Your task to perform on an android device: toggle notification dots Image 0: 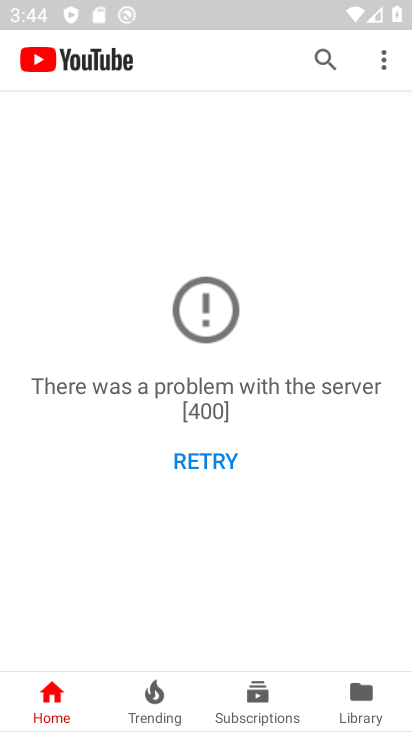
Step 0: press home button
Your task to perform on an android device: toggle notification dots Image 1: 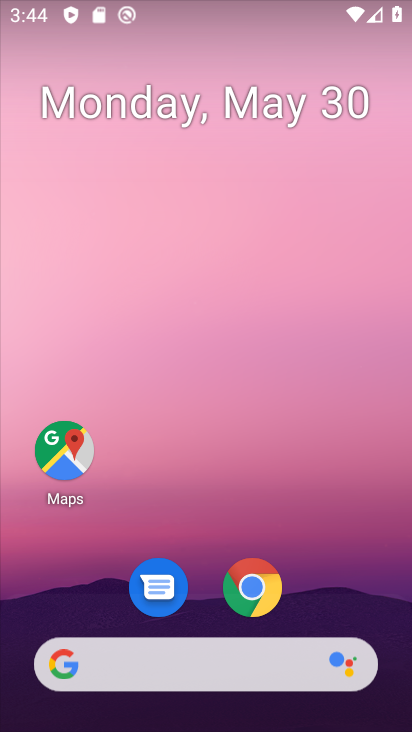
Step 1: drag from (264, 663) to (180, 105)
Your task to perform on an android device: toggle notification dots Image 2: 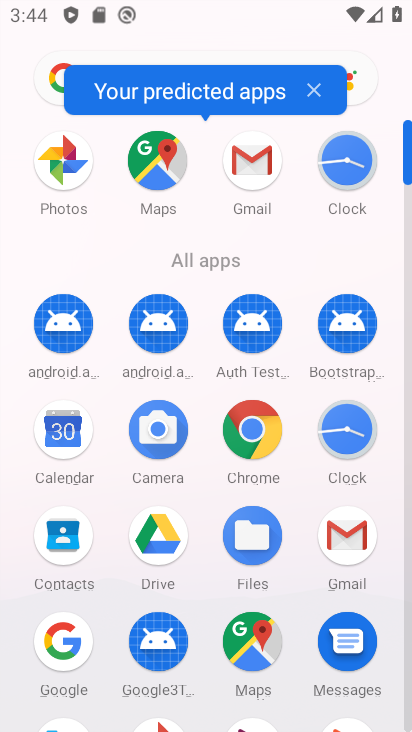
Step 2: drag from (208, 569) to (214, 297)
Your task to perform on an android device: toggle notification dots Image 3: 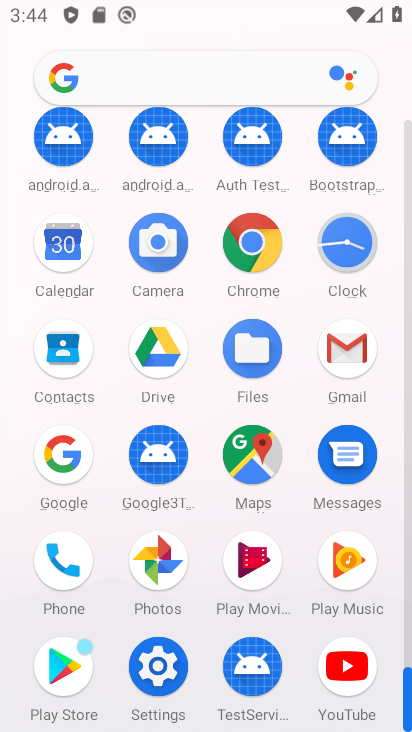
Step 3: click (164, 652)
Your task to perform on an android device: toggle notification dots Image 4: 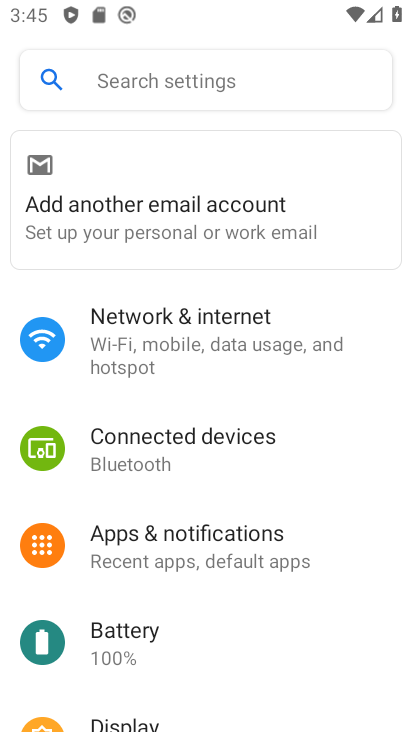
Step 4: click (162, 91)
Your task to perform on an android device: toggle notification dots Image 5: 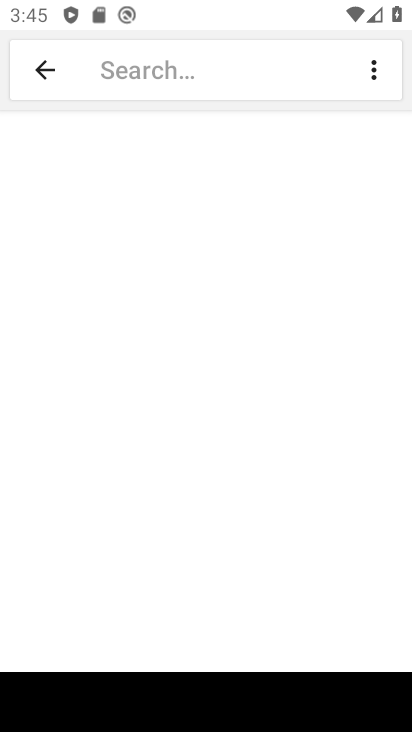
Step 5: drag from (388, 688) to (357, 482)
Your task to perform on an android device: toggle notification dots Image 6: 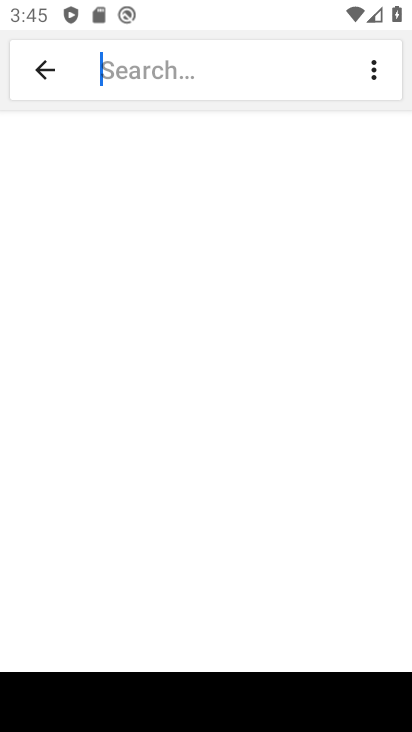
Step 6: drag from (393, 720) to (368, 673)
Your task to perform on an android device: toggle notification dots Image 7: 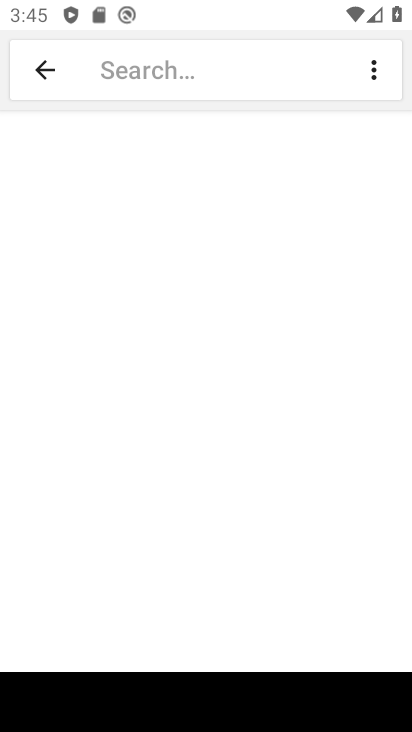
Step 7: drag from (394, 719) to (374, 628)
Your task to perform on an android device: toggle notification dots Image 8: 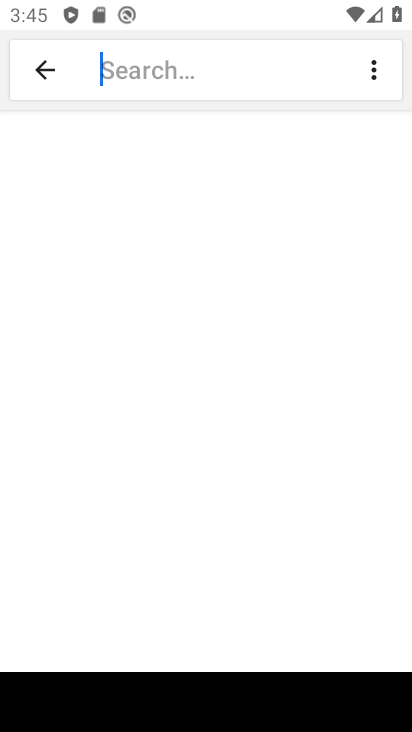
Step 8: click (390, 713)
Your task to perform on an android device: toggle notification dots Image 9: 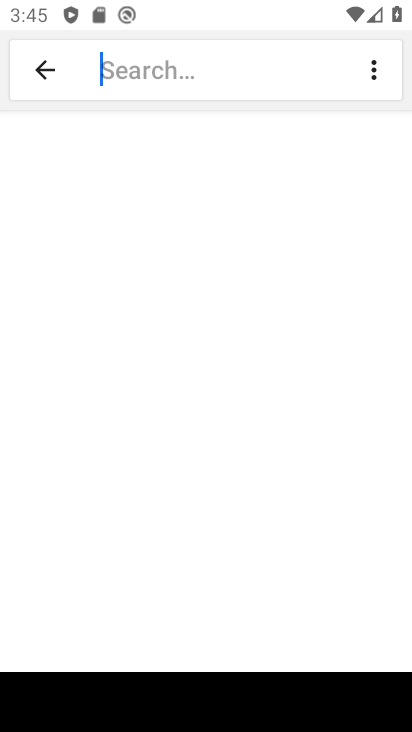
Step 9: drag from (386, 702) to (392, 488)
Your task to perform on an android device: toggle notification dots Image 10: 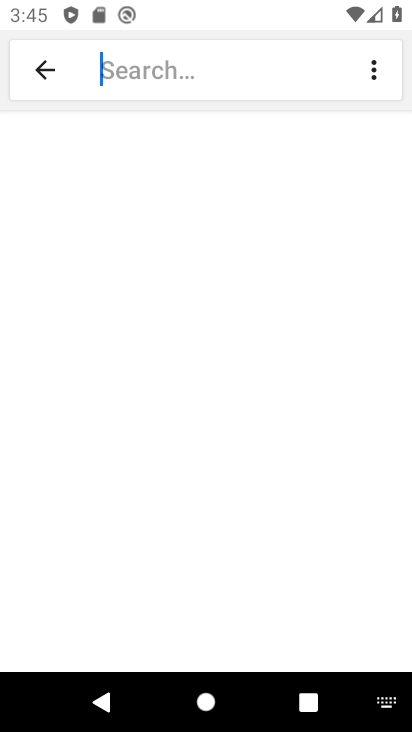
Step 10: click (395, 715)
Your task to perform on an android device: toggle notification dots Image 11: 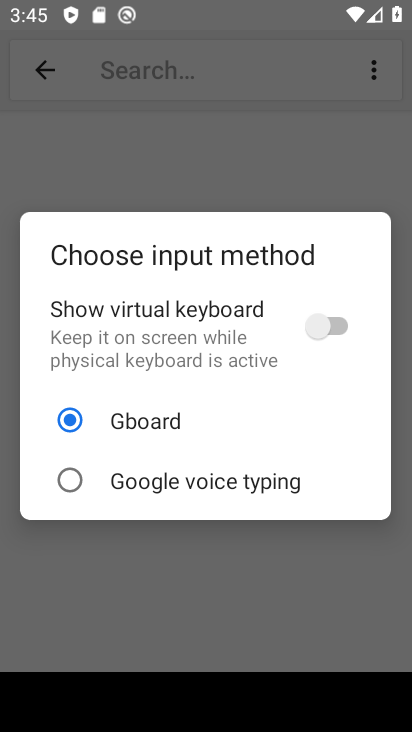
Step 11: click (329, 334)
Your task to perform on an android device: toggle notification dots Image 12: 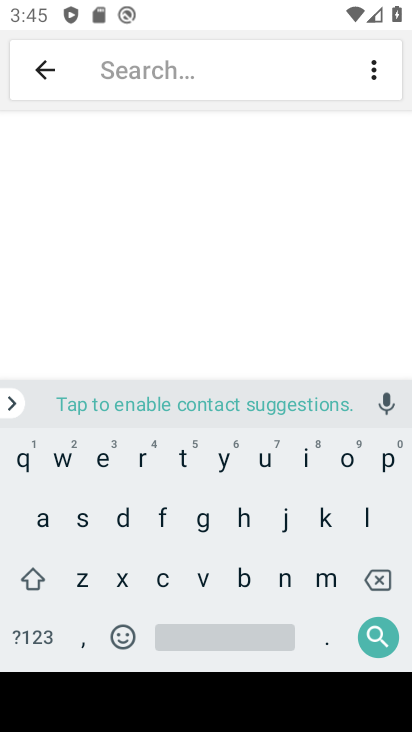
Step 12: click (120, 514)
Your task to perform on an android device: toggle notification dots Image 13: 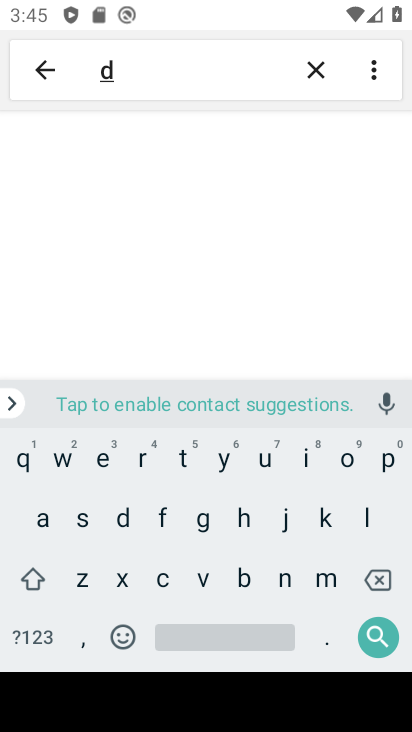
Step 13: click (343, 457)
Your task to perform on an android device: toggle notification dots Image 14: 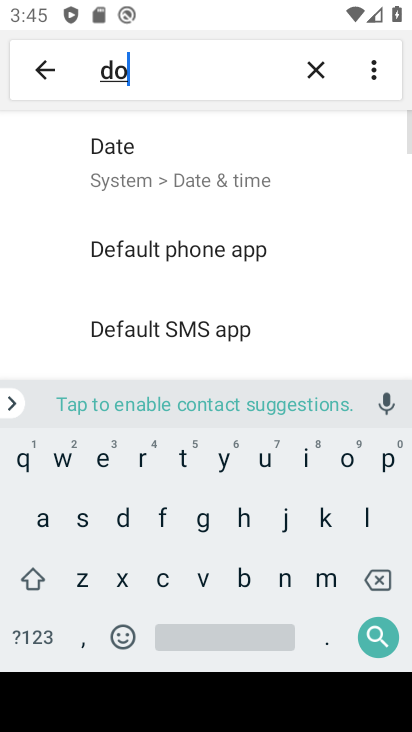
Step 14: click (180, 460)
Your task to perform on an android device: toggle notification dots Image 15: 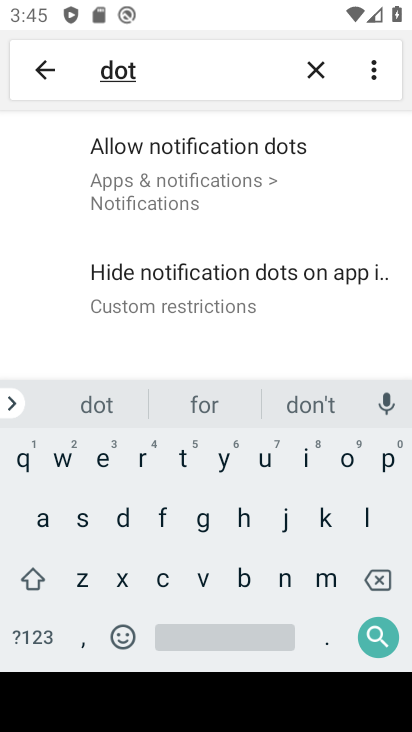
Step 15: click (208, 168)
Your task to perform on an android device: toggle notification dots Image 16: 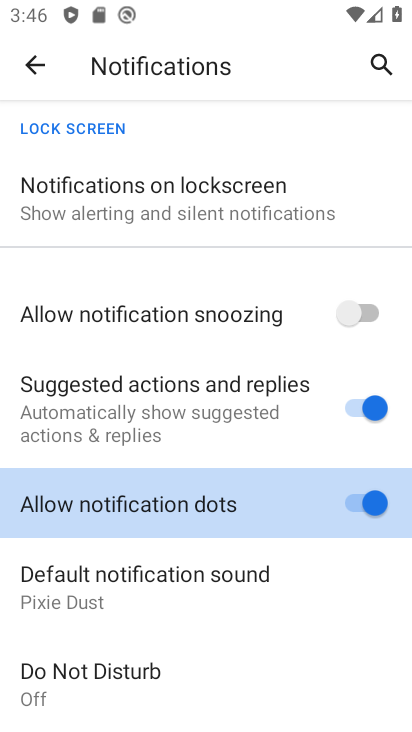
Step 16: task complete